Your task to perform on an android device: change text size in settings app Image 0: 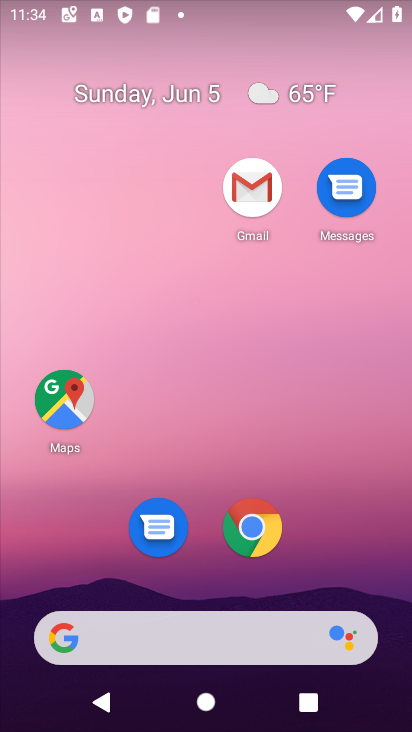
Step 0: click (314, 453)
Your task to perform on an android device: change text size in settings app Image 1: 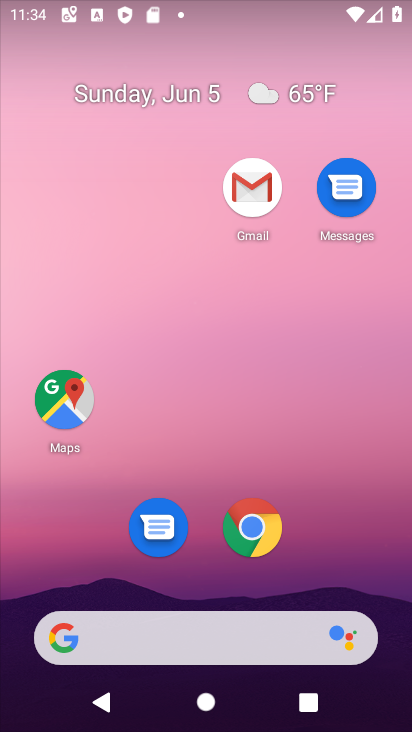
Step 1: drag from (327, 411) to (333, 208)
Your task to perform on an android device: change text size in settings app Image 2: 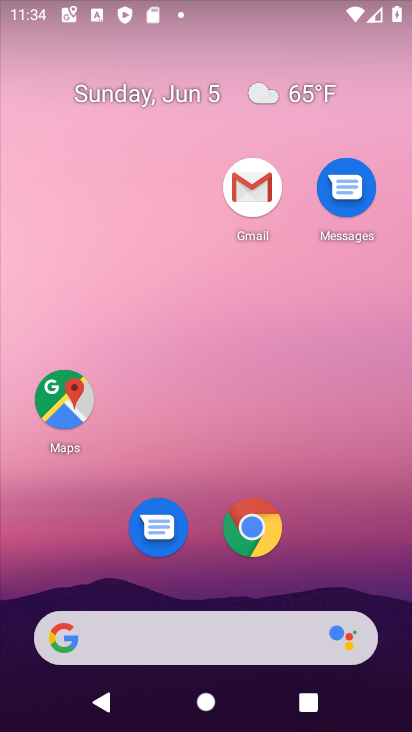
Step 2: drag from (383, 587) to (373, 246)
Your task to perform on an android device: change text size in settings app Image 3: 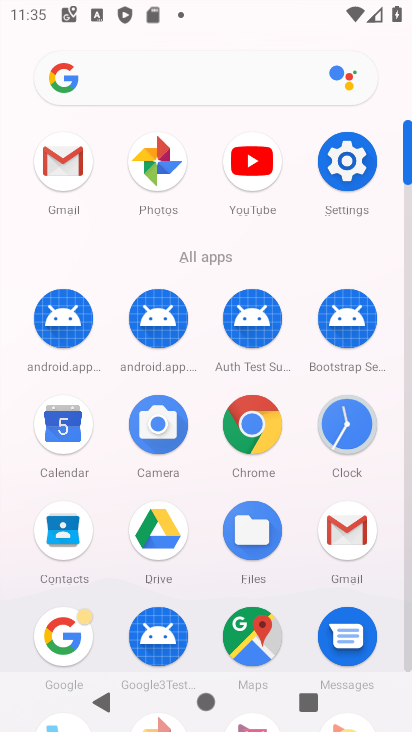
Step 3: click (356, 150)
Your task to perform on an android device: change text size in settings app Image 4: 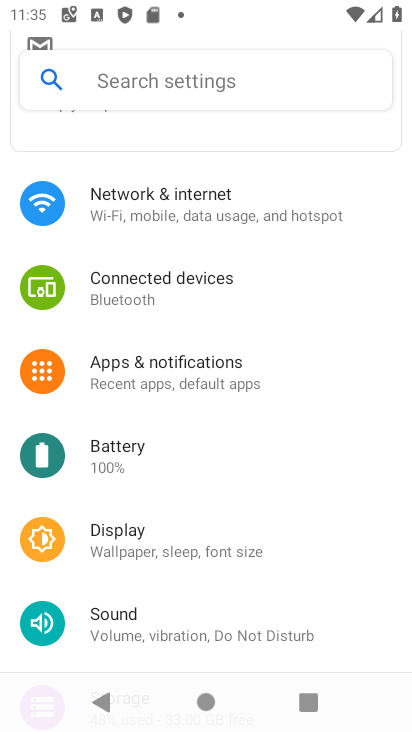
Step 4: click (202, 551)
Your task to perform on an android device: change text size in settings app Image 5: 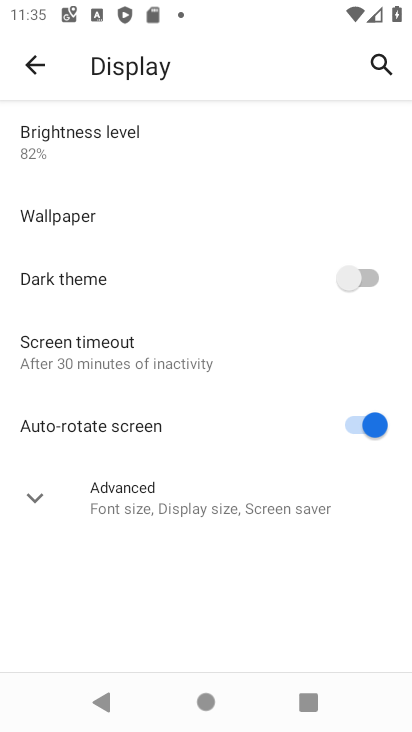
Step 5: click (171, 504)
Your task to perform on an android device: change text size in settings app Image 6: 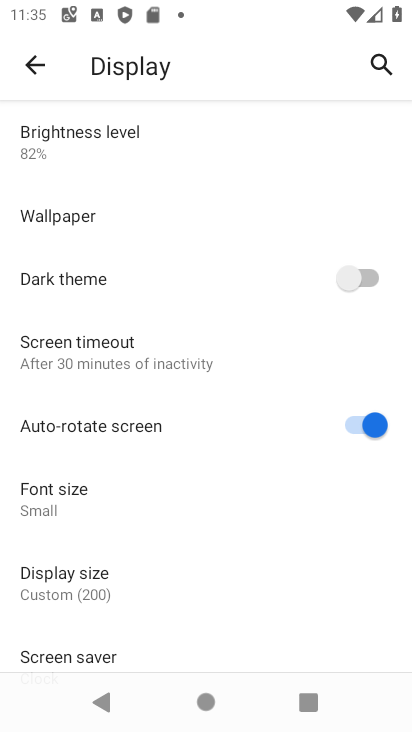
Step 6: click (71, 521)
Your task to perform on an android device: change text size in settings app Image 7: 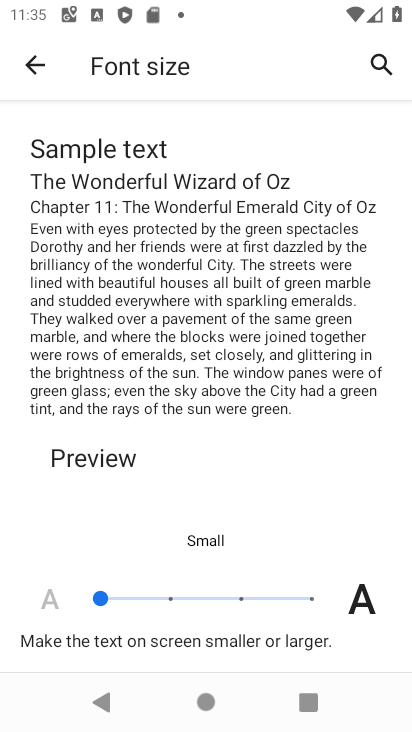
Step 7: click (167, 594)
Your task to perform on an android device: change text size in settings app Image 8: 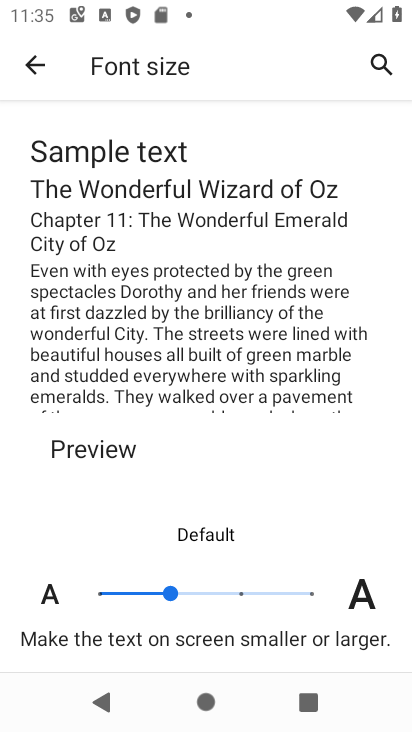
Step 8: task complete